Your task to perform on an android device: choose inbox layout in the gmail app Image 0: 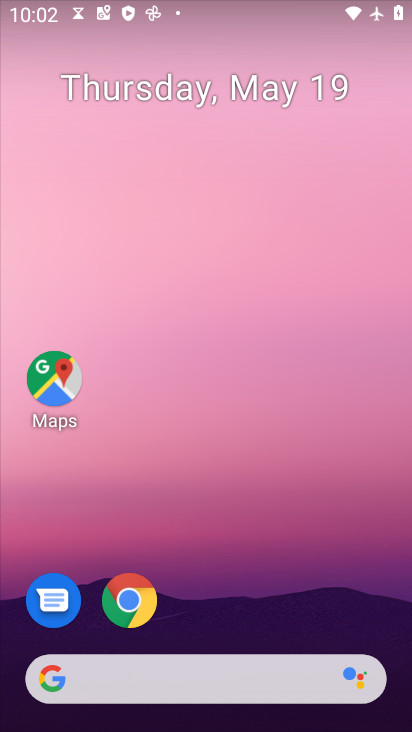
Step 0: drag from (264, 588) to (275, 13)
Your task to perform on an android device: choose inbox layout in the gmail app Image 1: 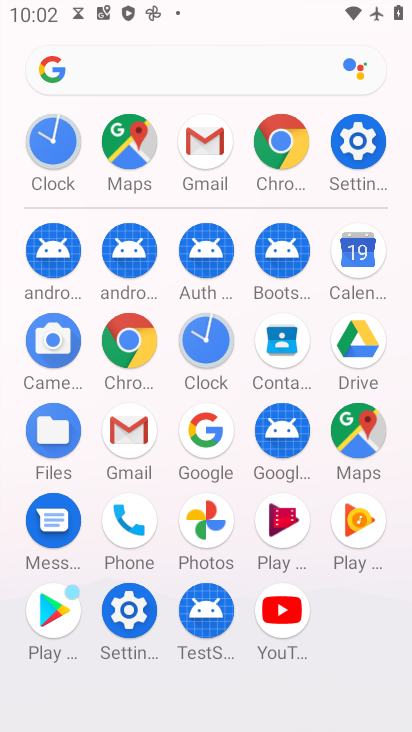
Step 1: drag from (12, 637) to (24, 293)
Your task to perform on an android device: choose inbox layout in the gmail app Image 2: 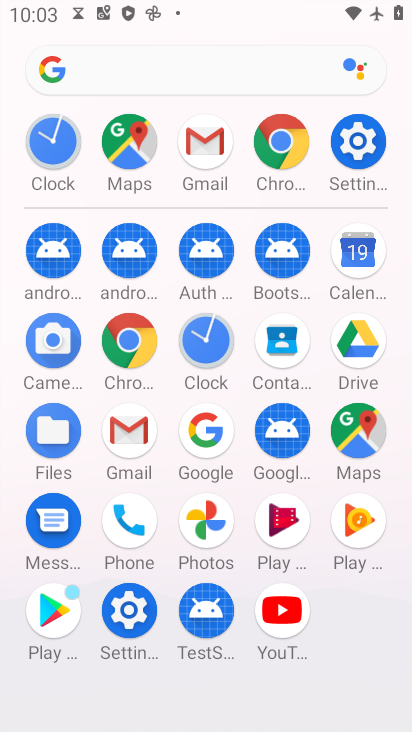
Step 2: drag from (5, 580) to (2, 322)
Your task to perform on an android device: choose inbox layout in the gmail app Image 3: 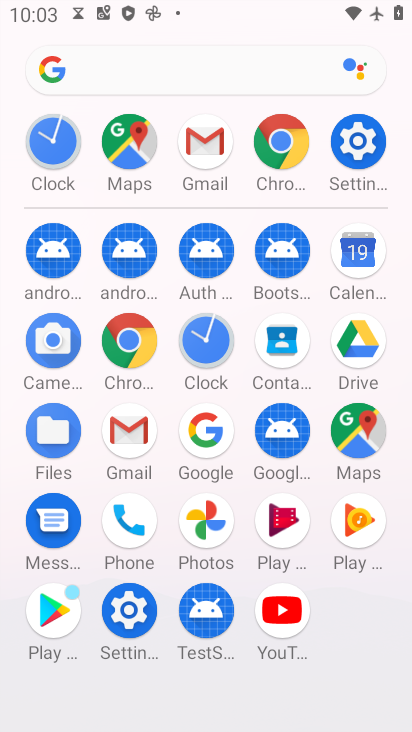
Step 3: click (130, 425)
Your task to perform on an android device: choose inbox layout in the gmail app Image 4: 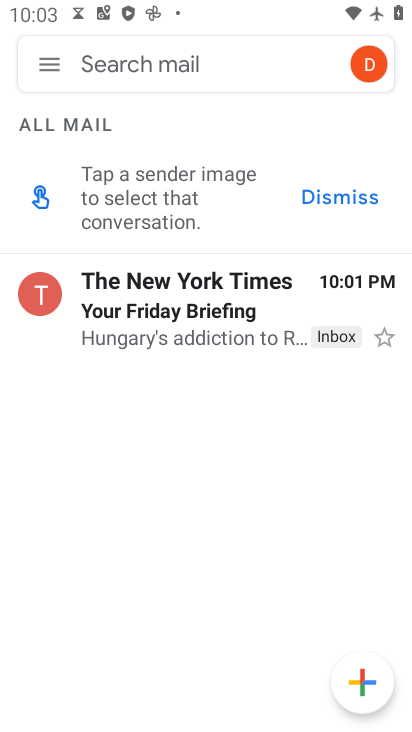
Step 4: click (50, 59)
Your task to perform on an android device: choose inbox layout in the gmail app Image 5: 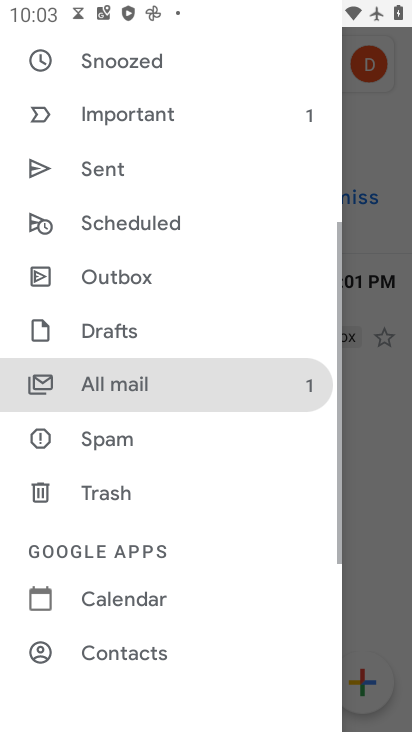
Step 5: drag from (181, 633) to (179, 155)
Your task to perform on an android device: choose inbox layout in the gmail app Image 6: 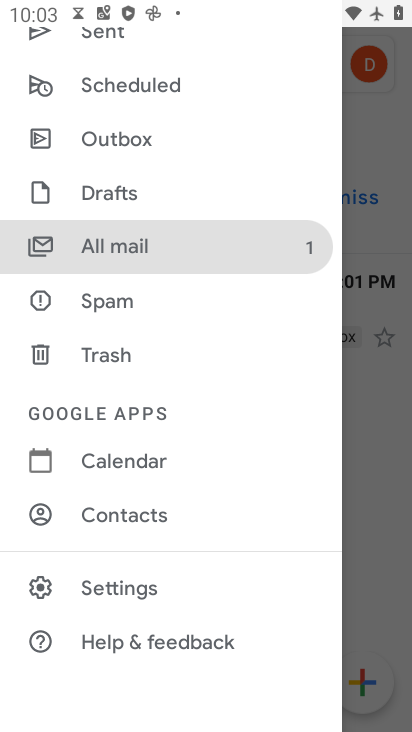
Step 6: click (136, 571)
Your task to perform on an android device: choose inbox layout in the gmail app Image 7: 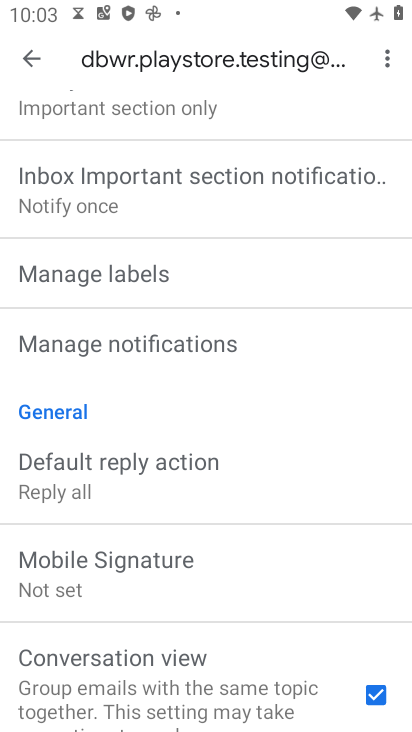
Step 7: drag from (195, 197) to (206, 564)
Your task to perform on an android device: choose inbox layout in the gmail app Image 8: 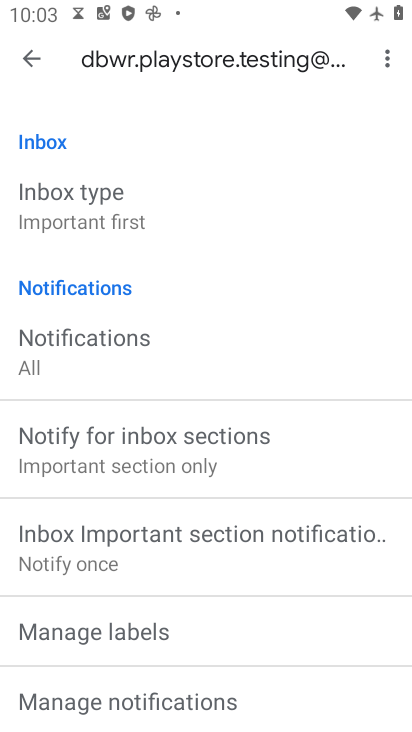
Step 8: click (108, 188)
Your task to perform on an android device: choose inbox layout in the gmail app Image 9: 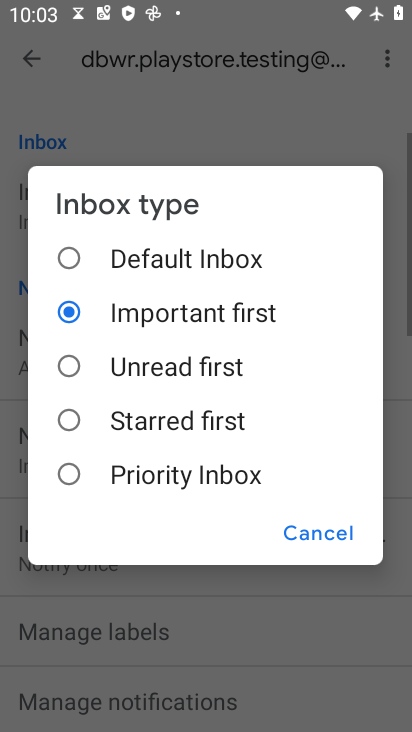
Step 9: click (145, 253)
Your task to perform on an android device: choose inbox layout in the gmail app Image 10: 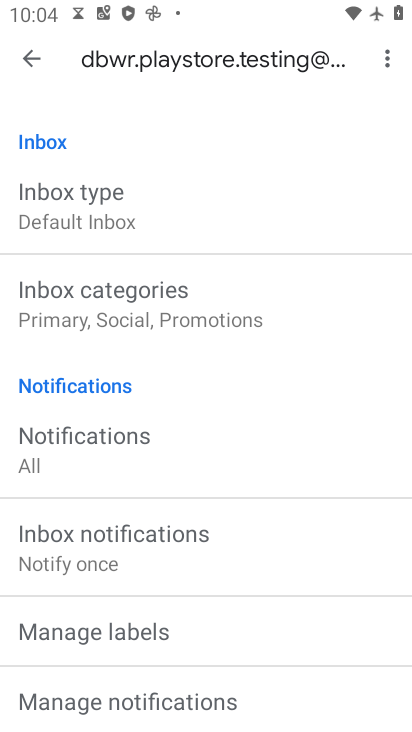
Step 10: task complete